Your task to perform on an android device: turn on javascript in the chrome app Image 0: 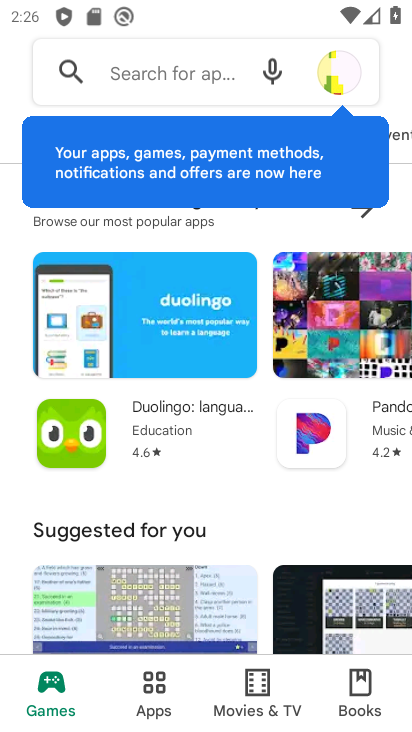
Step 0: press home button
Your task to perform on an android device: turn on javascript in the chrome app Image 1: 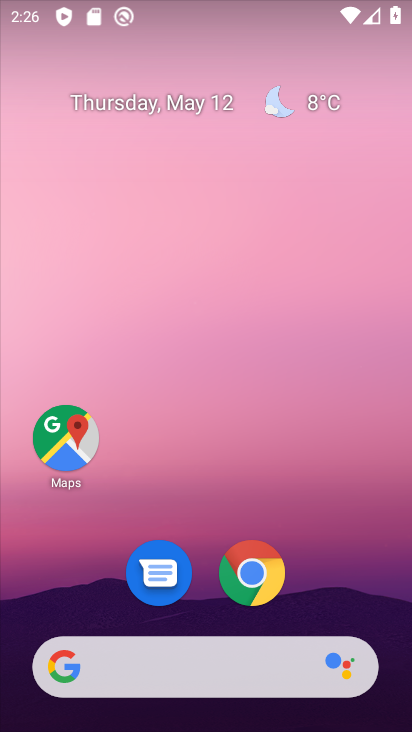
Step 1: click (244, 564)
Your task to perform on an android device: turn on javascript in the chrome app Image 2: 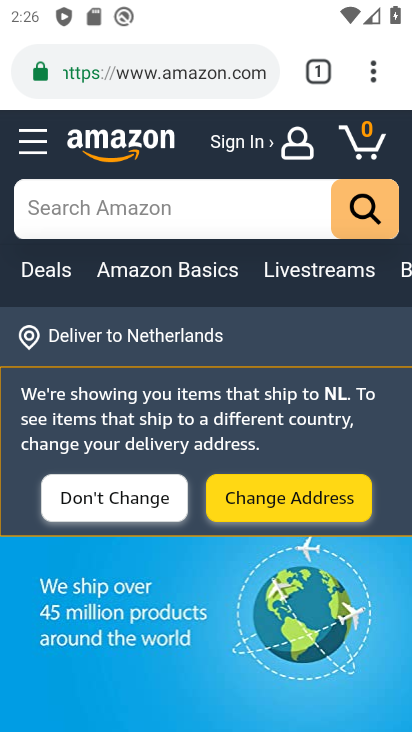
Step 2: drag from (370, 66) to (114, 561)
Your task to perform on an android device: turn on javascript in the chrome app Image 3: 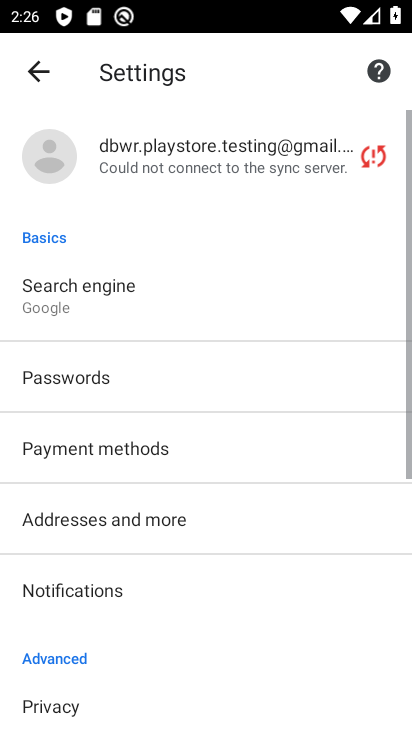
Step 3: drag from (229, 670) to (228, 218)
Your task to perform on an android device: turn on javascript in the chrome app Image 4: 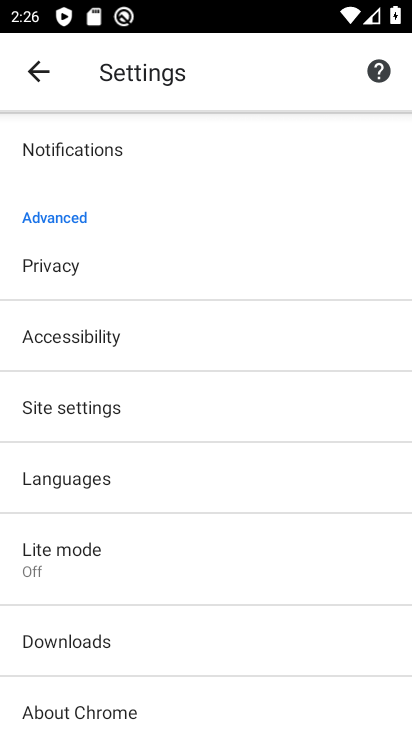
Step 4: click (104, 402)
Your task to perform on an android device: turn on javascript in the chrome app Image 5: 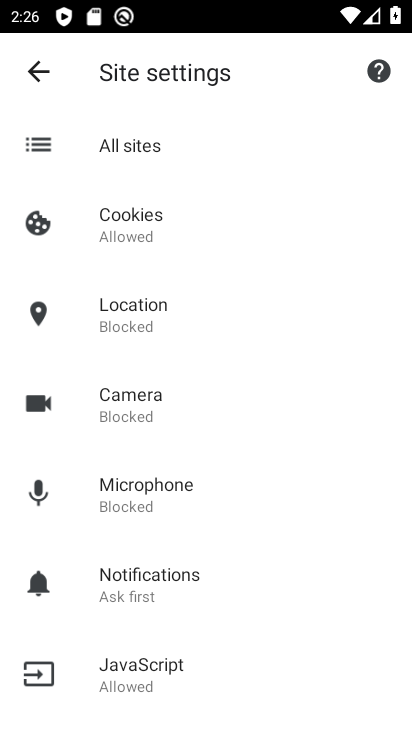
Step 5: click (142, 672)
Your task to perform on an android device: turn on javascript in the chrome app Image 6: 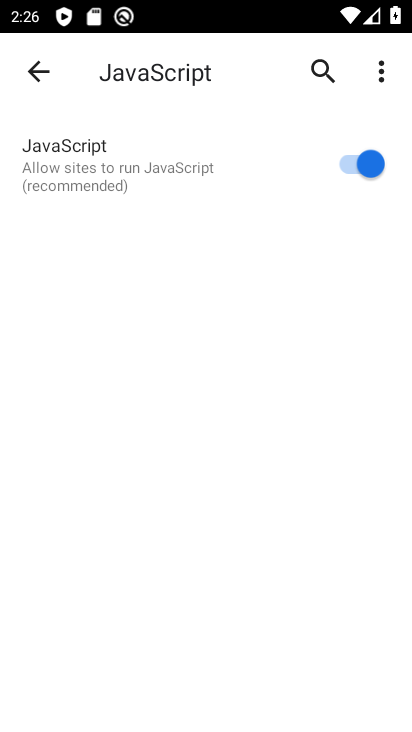
Step 6: task complete